Your task to perform on an android device: turn off translation in the chrome app Image 0: 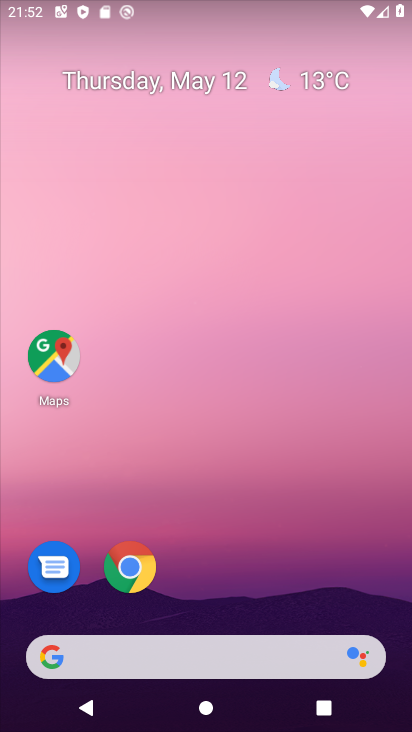
Step 0: press home button
Your task to perform on an android device: turn off translation in the chrome app Image 1: 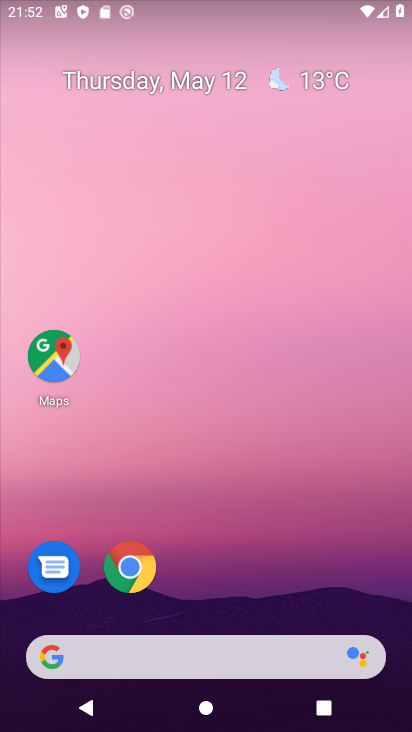
Step 1: click (127, 561)
Your task to perform on an android device: turn off translation in the chrome app Image 2: 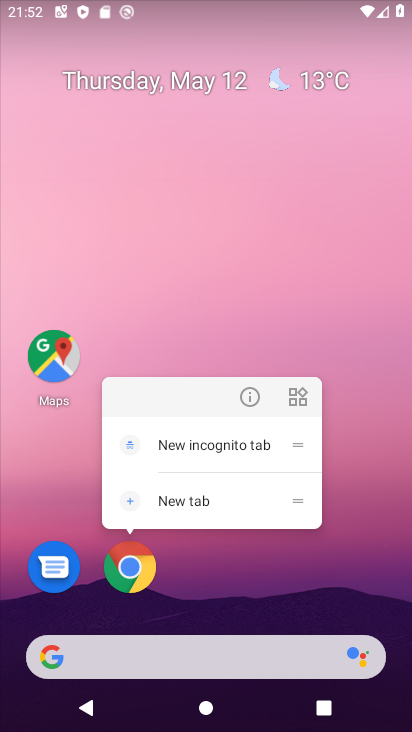
Step 2: click (127, 561)
Your task to perform on an android device: turn off translation in the chrome app Image 3: 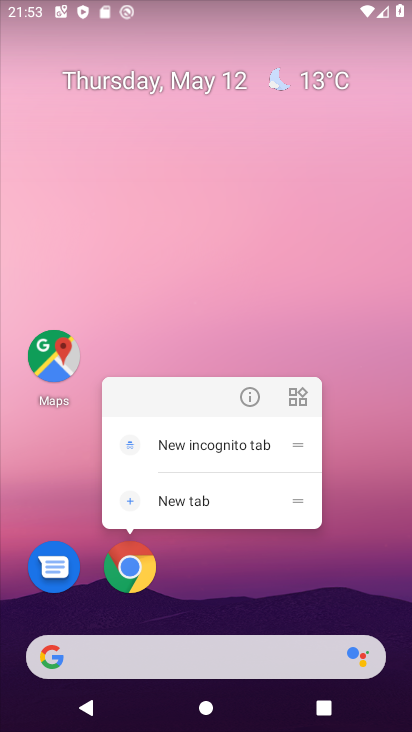
Step 3: click (182, 575)
Your task to perform on an android device: turn off translation in the chrome app Image 4: 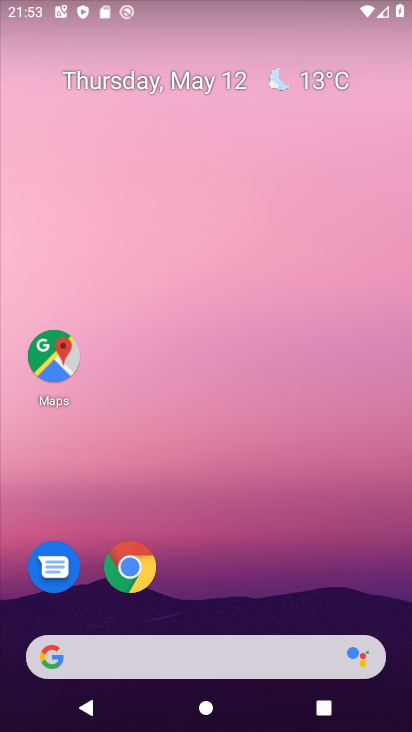
Step 4: drag from (226, 615) to (257, 79)
Your task to perform on an android device: turn off translation in the chrome app Image 5: 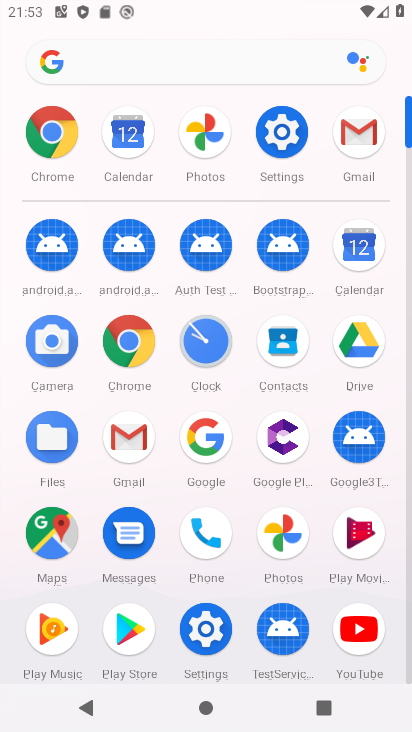
Step 5: click (49, 125)
Your task to perform on an android device: turn off translation in the chrome app Image 6: 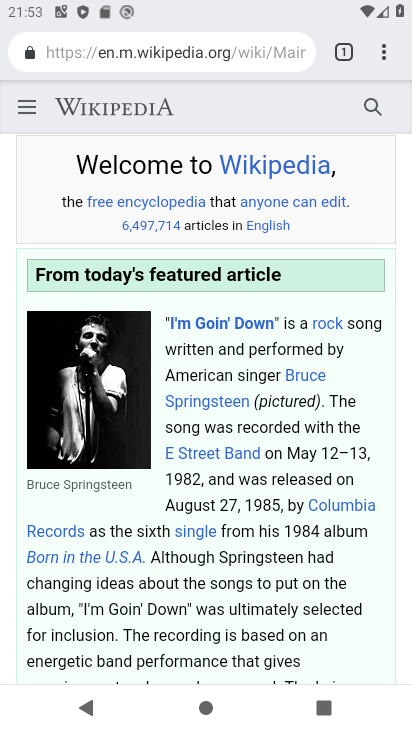
Step 6: click (384, 48)
Your task to perform on an android device: turn off translation in the chrome app Image 7: 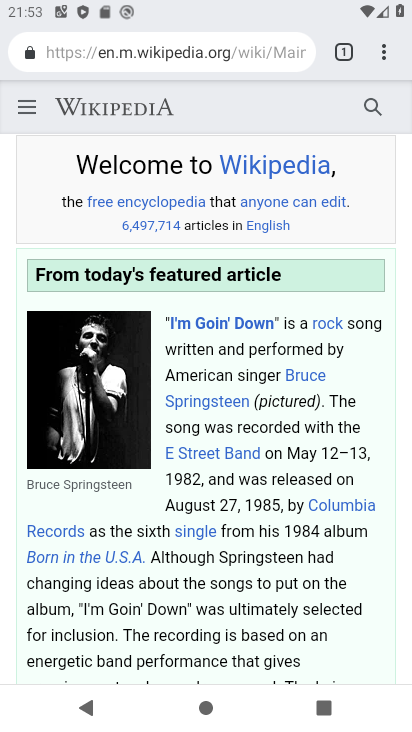
Step 7: click (381, 49)
Your task to perform on an android device: turn off translation in the chrome app Image 8: 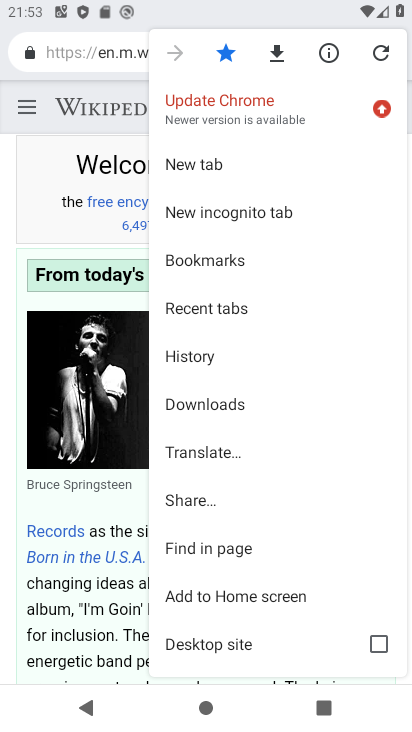
Step 8: drag from (268, 596) to (283, 130)
Your task to perform on an android device: turn off translation in the chrome app Image 9: 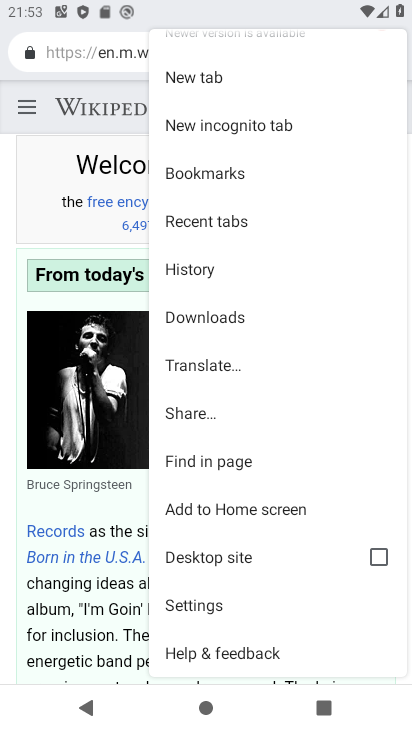
Step 9: click (245, 601)
Your task to perform on an android device: turn off translation in the chrome app Image 10: 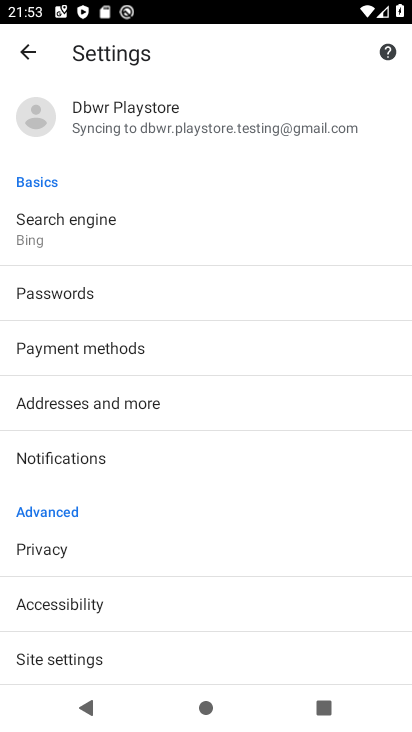
Step 10: drag from (189, 620) to (204, 168)
Your task to perform on an android device: turn off translation in the chrome app Image 11: 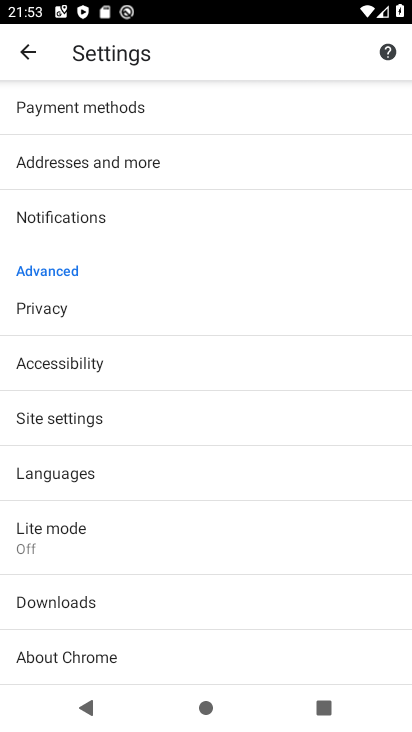
Step 11: click (113, 471)
Your task to perform on an android device: turn off translation in the chrome app Image 12: 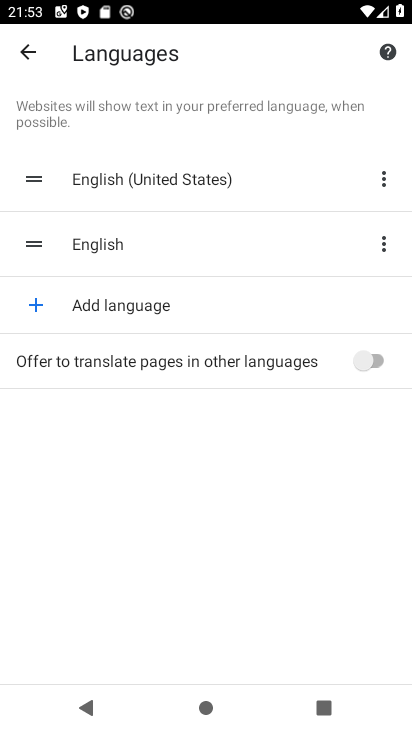
Step 12: task complete